Your task to perform on an android device: Go to Reddit.com Image 0: 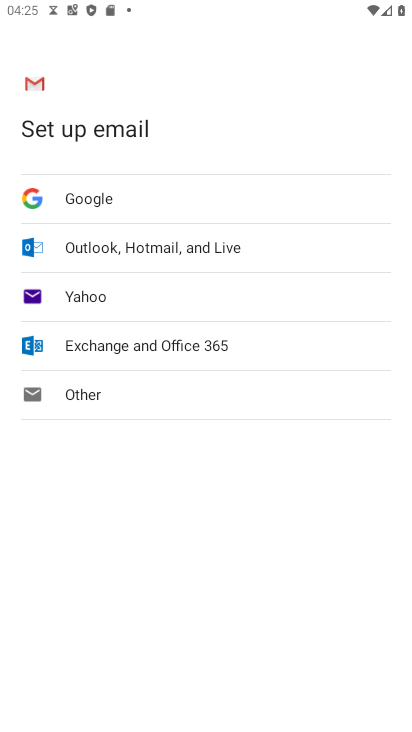
Step 0: press home button
Your task to perform on an android device: Go to Reddit.com Image 1: 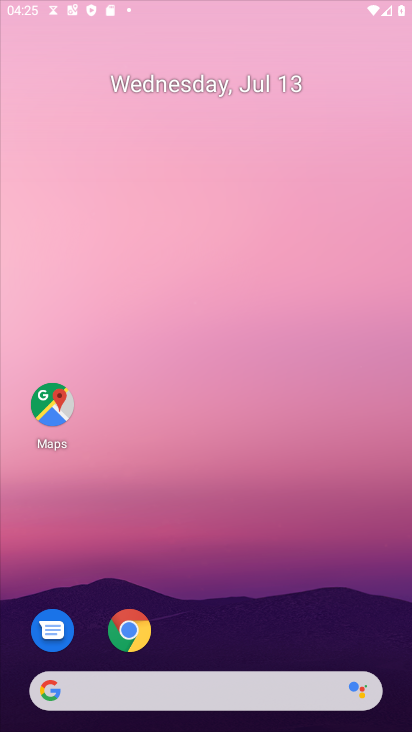
Step 1: drag from (276, 680) to (367, 4)
Your task to perform on an android device: Go to Reddit.com Image 2: 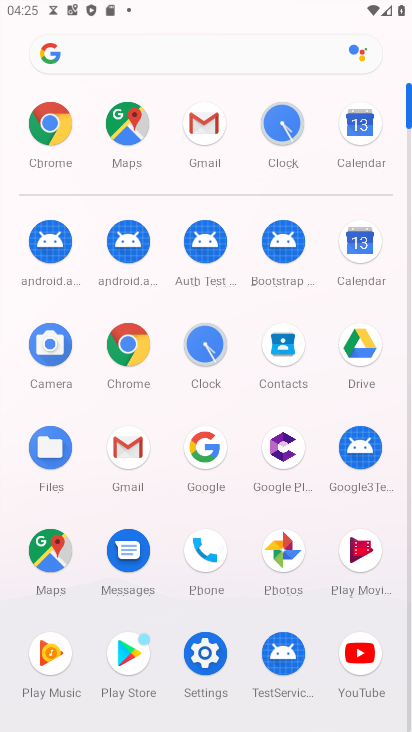
Step 2: click (127, 338)
Your task to perform on an android device: Go to Reddit.com Image 3: 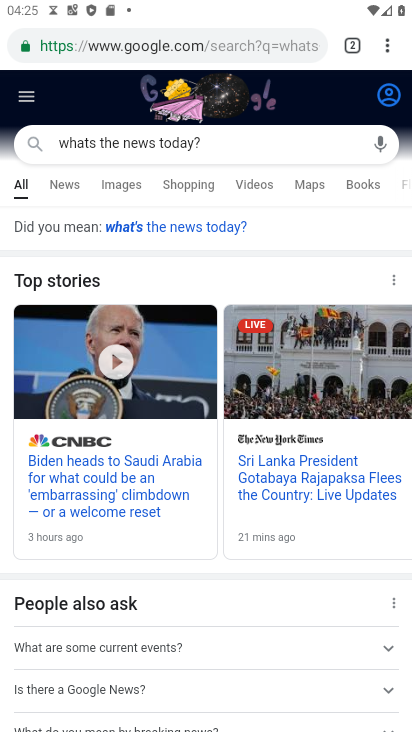
Step 3: click (169, 37)
Your task to perform on an android device: Go to Reddit.com Image 4: 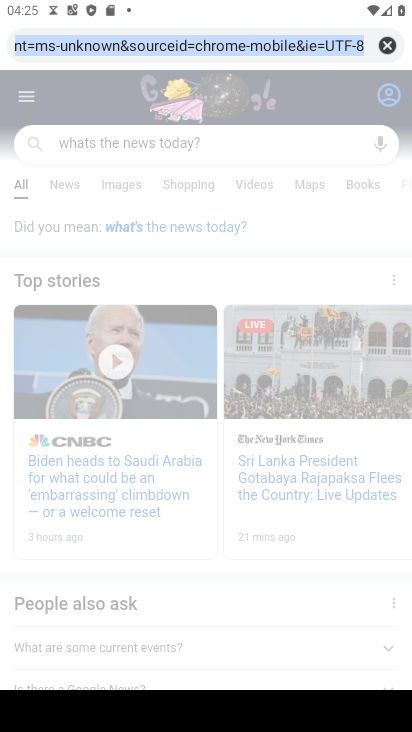
Step 4: type "reddit.com"
Your task to perform on an android device: Go to Reddit.com Image 5: 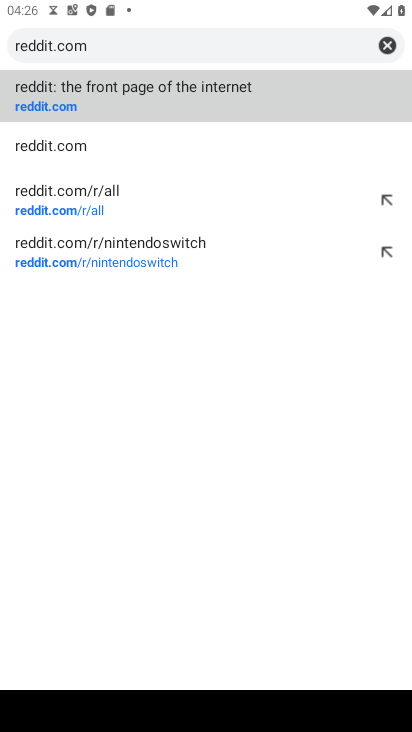
Step 5: click (120, 97)
Your task to perform on an android device: Go to Reddit.com Image 6: 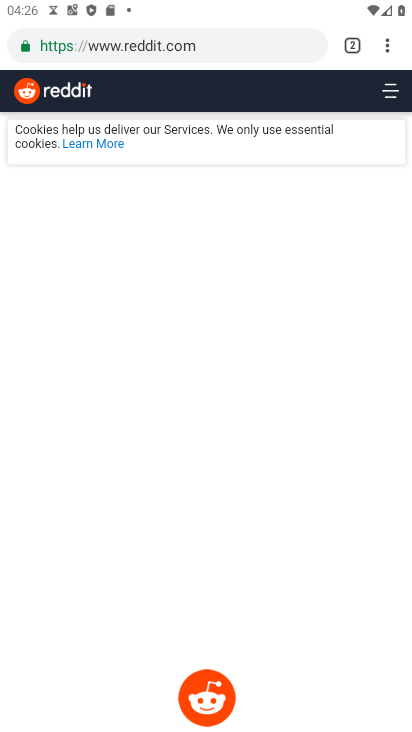
Step 6: task complete